Your task to perform on an android device: Search for good Italian restaurants on Maps Image 0: 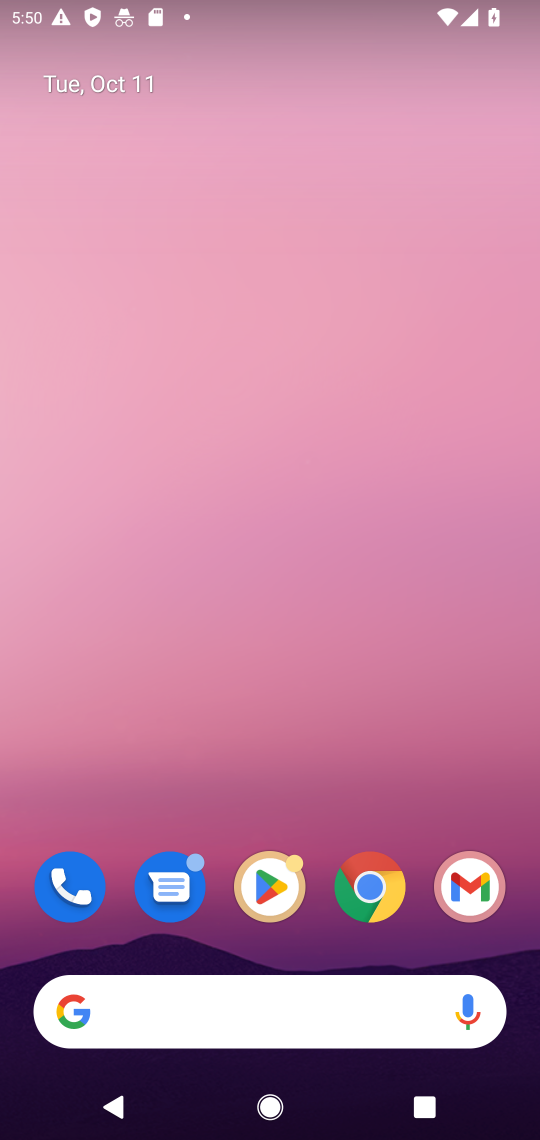
Step 0: click (271, 1003)
Your task to perform on an android device: Search for good Italian restaurants on Maps Image 1: 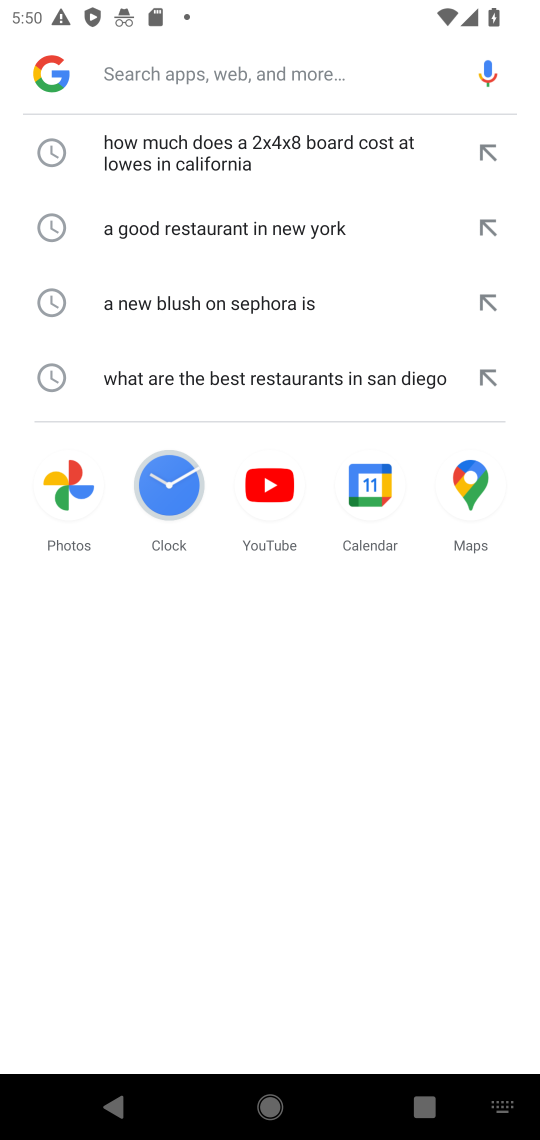
Step 1: type " good Italian restaurants on Maps"
Your task to perform on an android device: Search for good Italian restaurants on Maps Image 2: 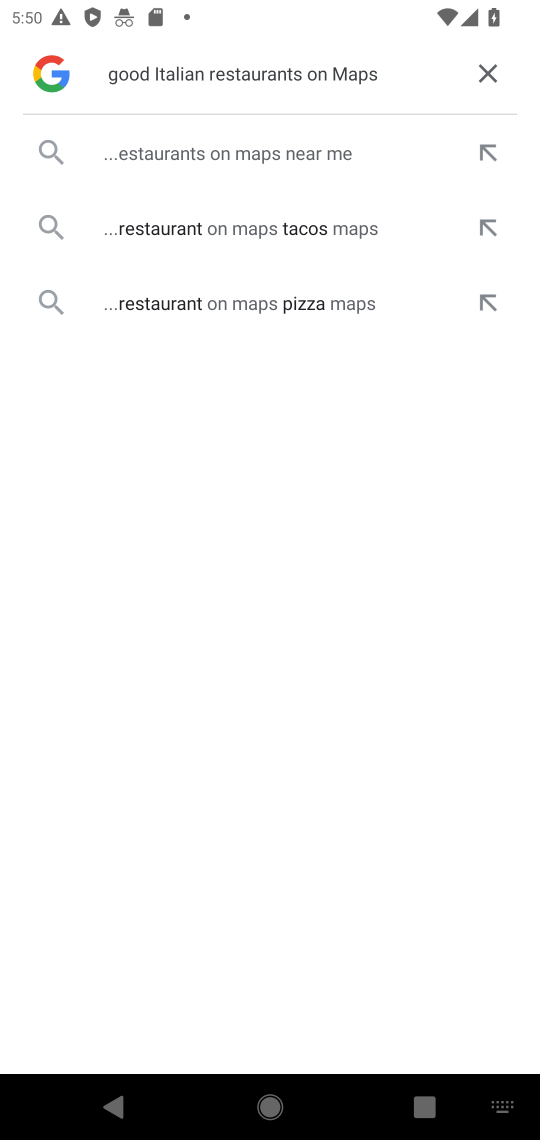
Step 2: click (480, 78)
Your task to perform on an android device: Search for good Italian restaurants on Maps Image 3: 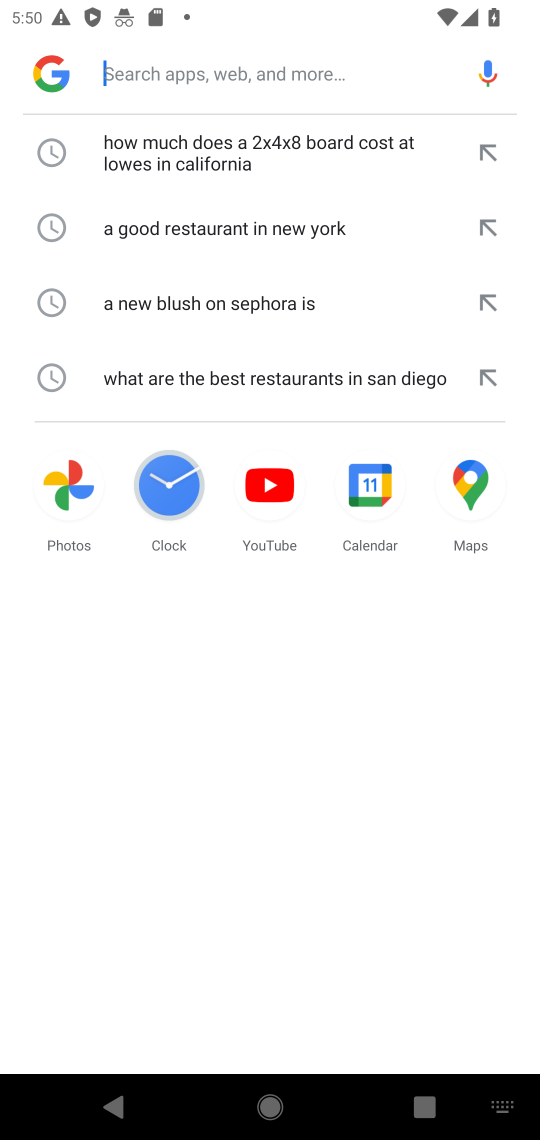
Step 3: click (469, 500)
Your task to perform on an android device: Search for good Italian restaurants on Maps Image 4: 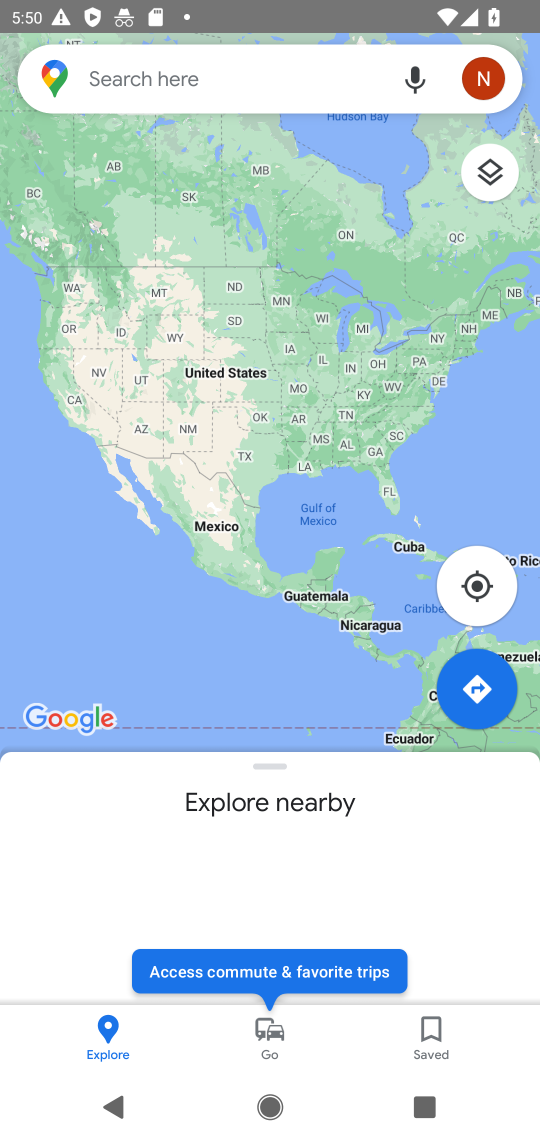
Step 4: click (194, 78)
Your task to perform on an android device: Search for good Italian restaurants on Maps Image 5: 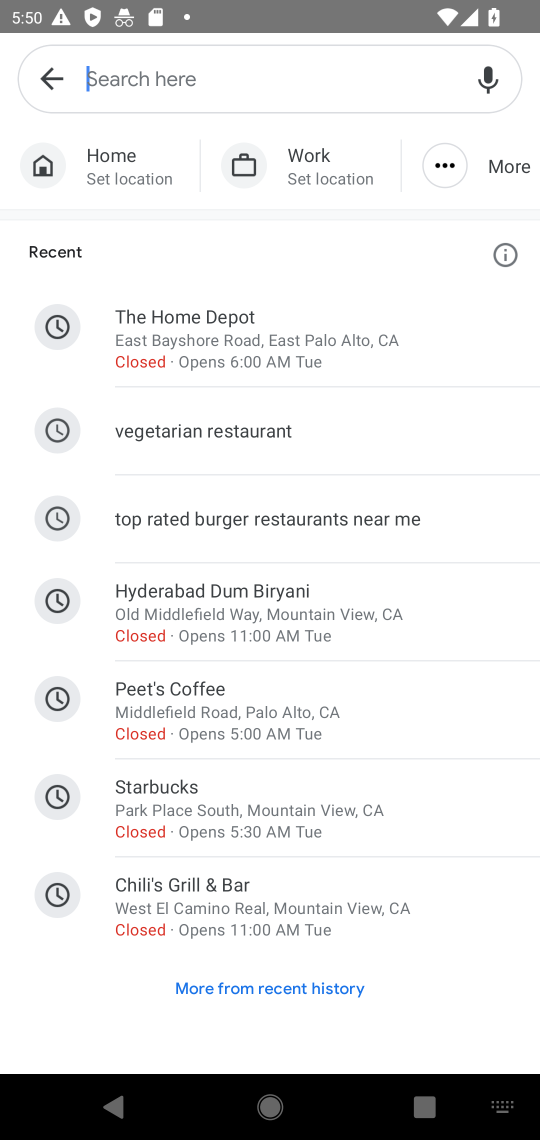
Step 5: type " good Italian restaurants "
Your task to perform on an android device: Search for good Italian restaurants on Maps Image 6: 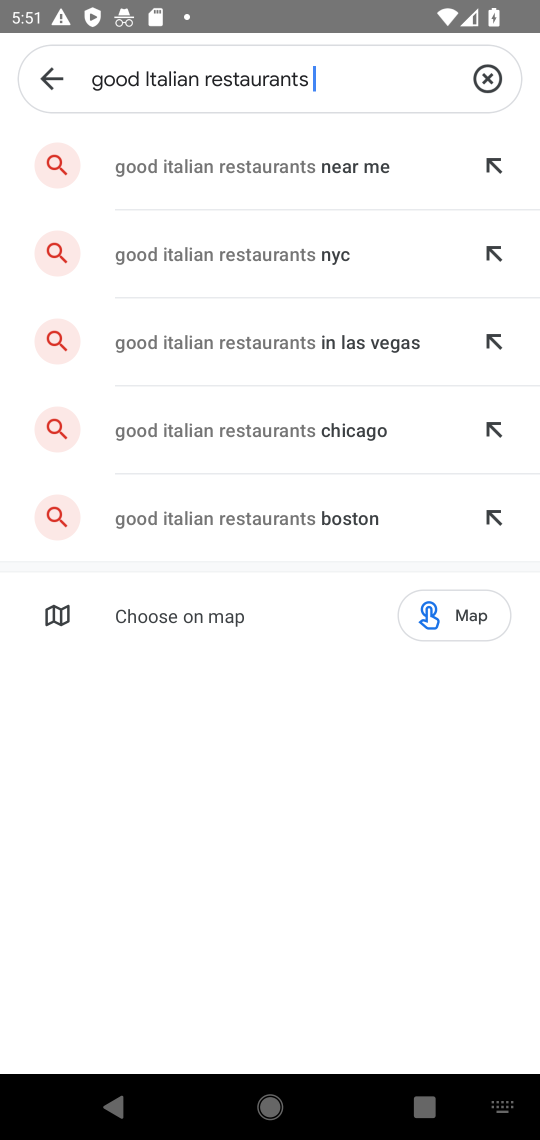
Step 6: click (269, 163)
Your task to perform on an android device: Search for good Italian restaurants on Maps Image 7: 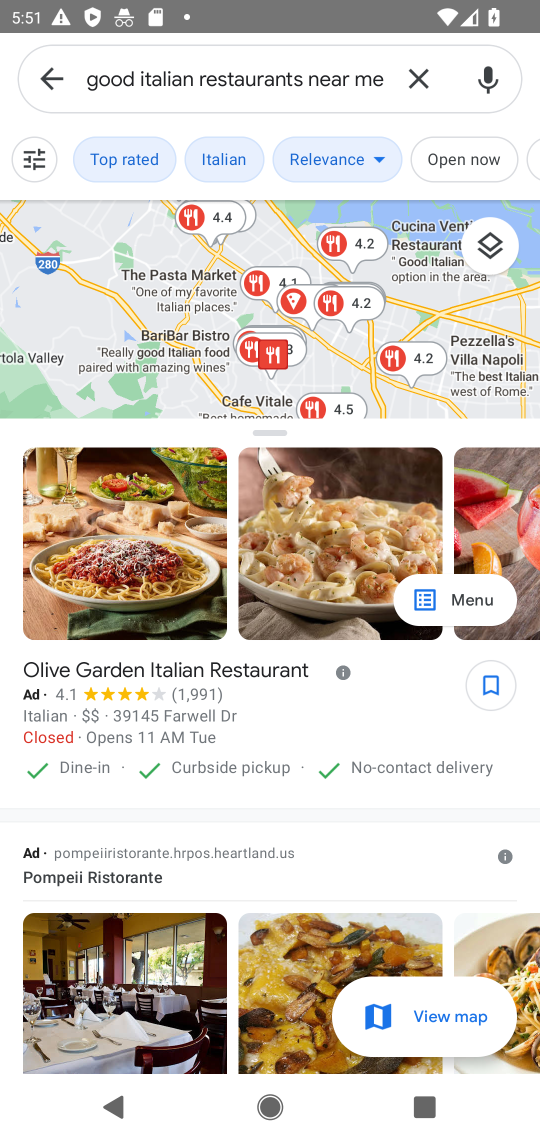
Step 7: task complete